Your task to perform on an android device: Go to Google Image 0: 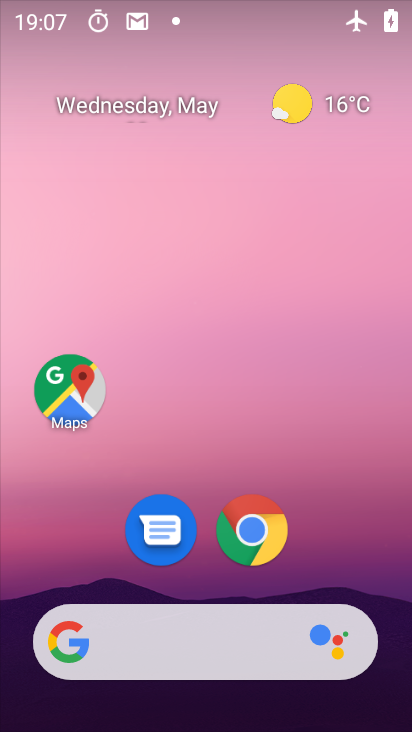
Step 0: drag from (199, 602) to (226, 220)
Your task to perform on an android device: Go to Google Image 1: 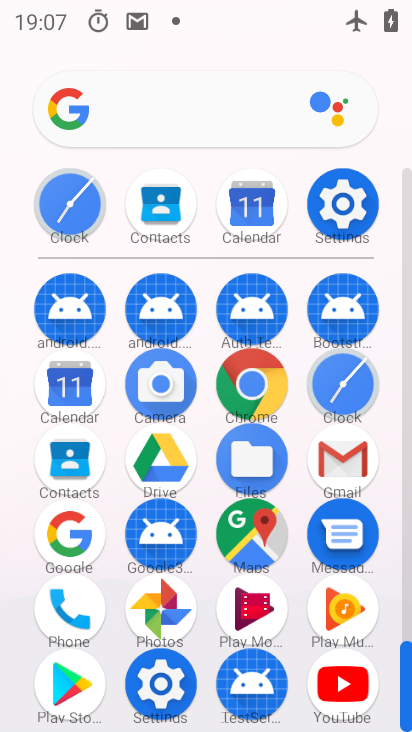
Step 1: click (67, 535)
Your task to perform on an android device: Go to Google Image 2: 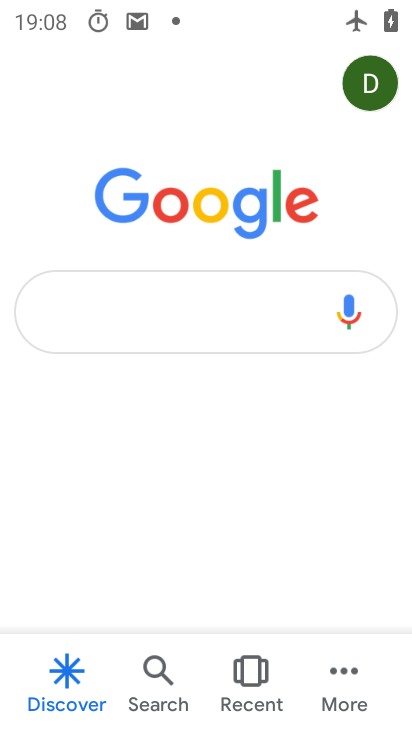
Step 2: task complete